Your task to perform on an android device: Toggle the flashlight Image 0: 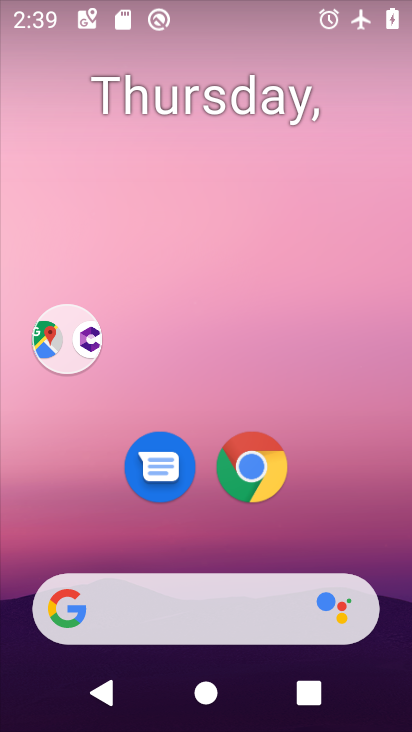
Step 0: drag from (193, 547) to (202, 11)
Your task to perform on an android device: Toggle the flashlight Image 1: 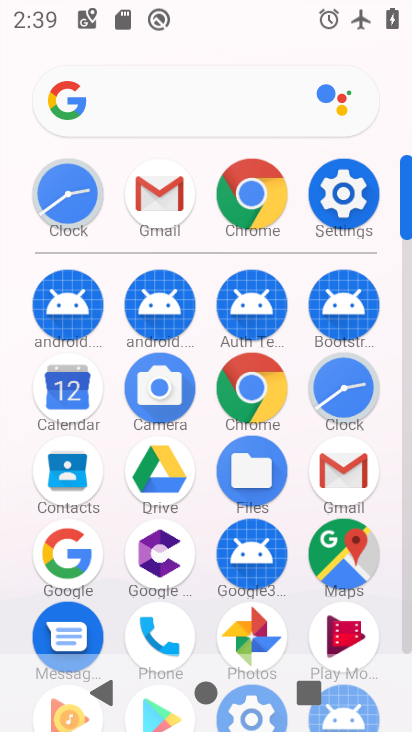
Step 1: click (332, 207)
Your task to perform on an android device: Toggle the flashlight Image 2: 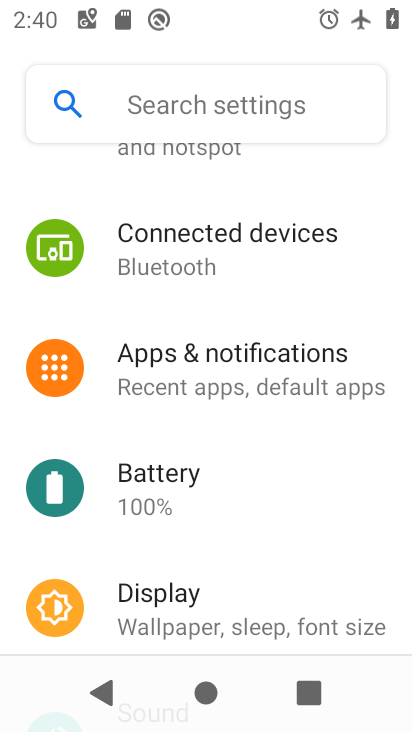
Step 2: drag from (262, 516) to (255, 677)
Your task to perform on an android device: Toggle the flashlight Image 3: 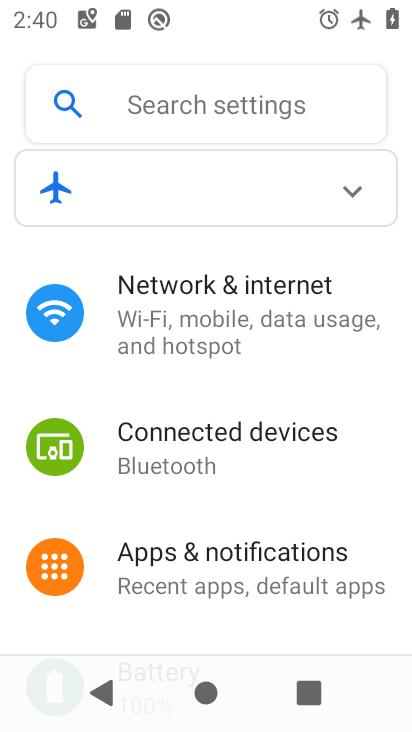
Step 3: click (230, 100)
Your task to perform on an android device: Toggle the flashlight Image 4: 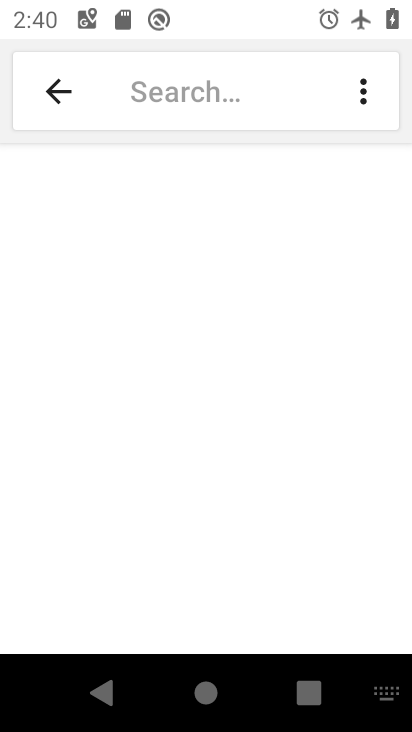
Step 4: type "flashlight"
Your task to perform on an android device: Toggle the flashlight Image 5: 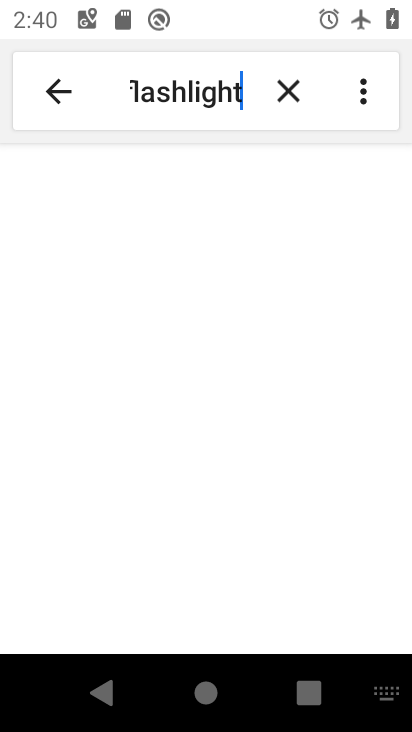
Step 5: task complete